Your task to perform on an android device: Open the stopwatch Image 0: 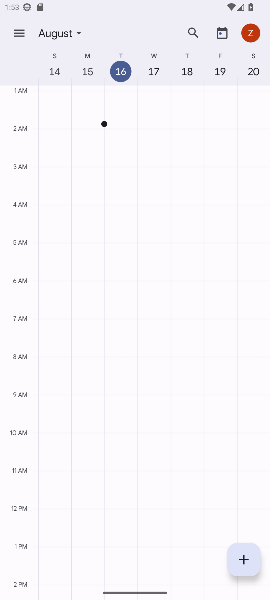
Step 0: press home button
Your task to perform on an android device: Open the stopwatch Image 1: 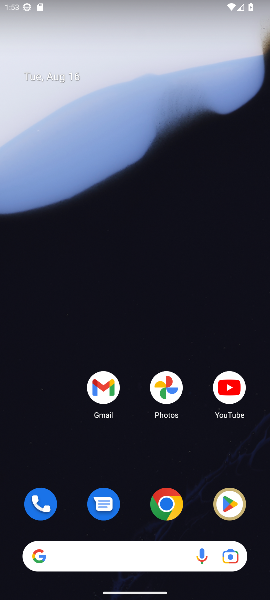
Step 1: drag from (142, 483) to (115, 24)
Your task to perform on an android device: Open the stopwatch Image 2: 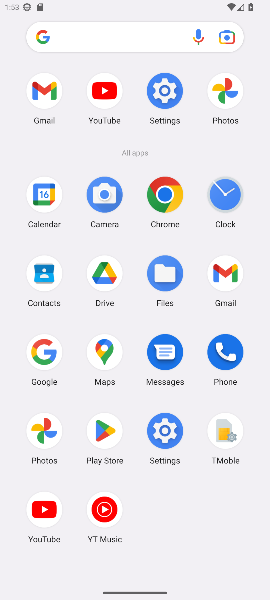
Step 2: click (225, 196)
Your task to perform on an android device: Open the stopwatch Image 3: 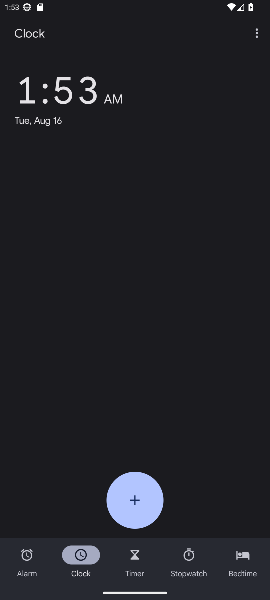
Step 3: click (190, 558)
Your task to perform on an android device: Open the stopwatch Image 4: 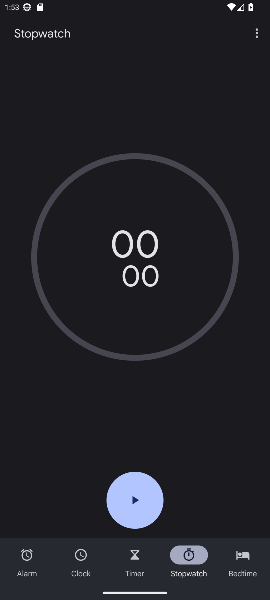
Step 4: task complete